Your task to perform on an android device: check google app version Image 0: 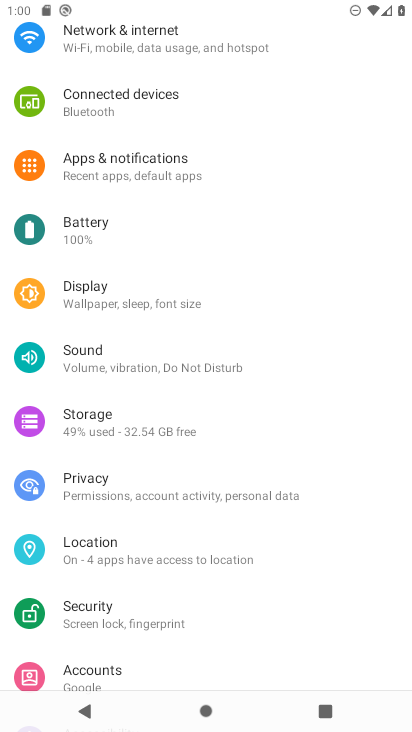
Step 0: press home button
Your task to perform on an android device: check google app version Image 1: 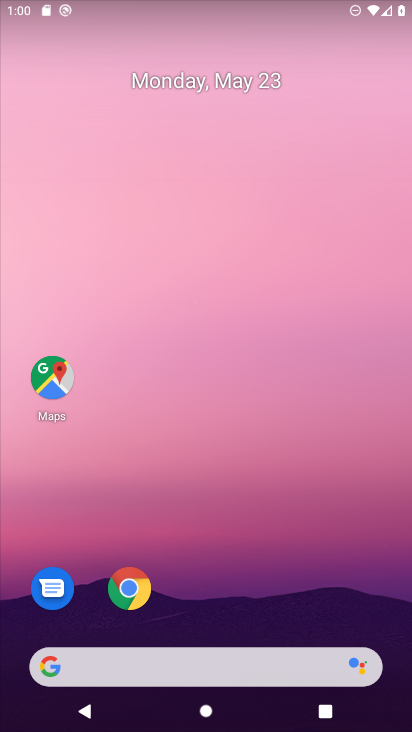
Step 1: drag from (199, 643) to (201, 372)
Your task to perform on an android device: check google app version Image 2: 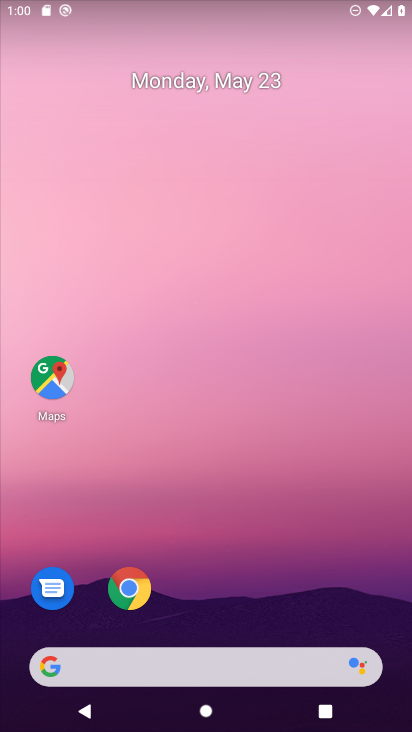
Step 2: drag from (205, 644) to (212, 12)
Your task to perform on an android device: check google app version Image 3: 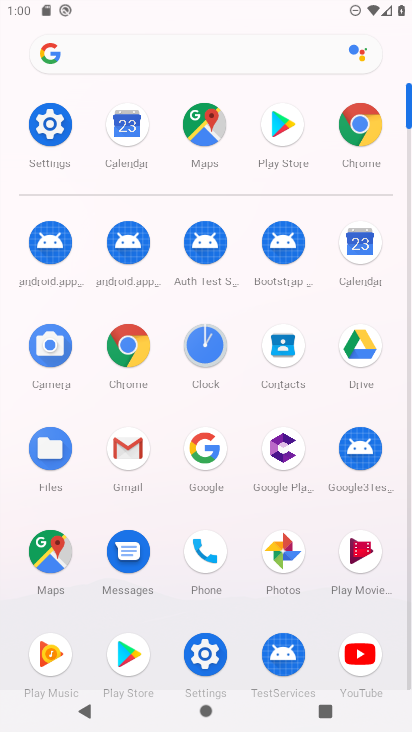
Step 3: drag from (207, 450) to (317, 292)
Your task to perform on an android device: check google app version Image 4: 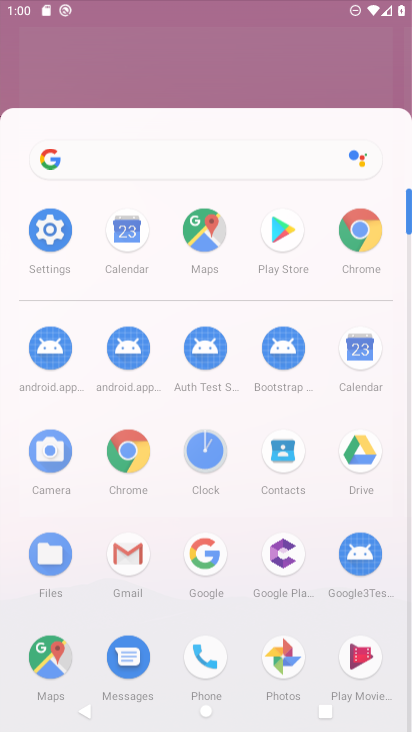
Step 4: click (311, 300)
Your task to perform on an android device: check google app version Image 5: 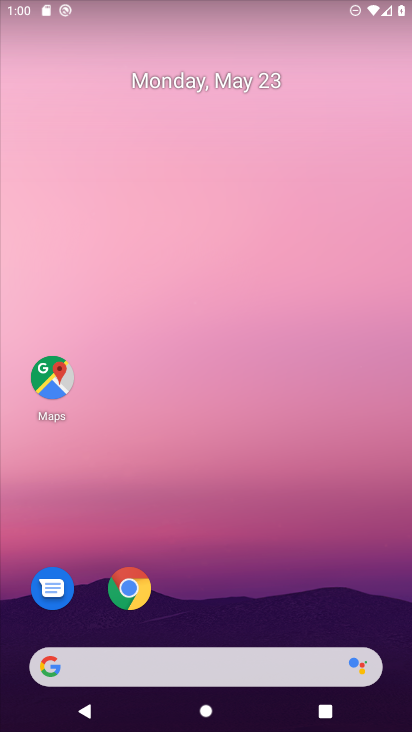
Step 5: drag from (191, 645) to (267, 186)
Your task to perform on an android device: check google app version Image 6: 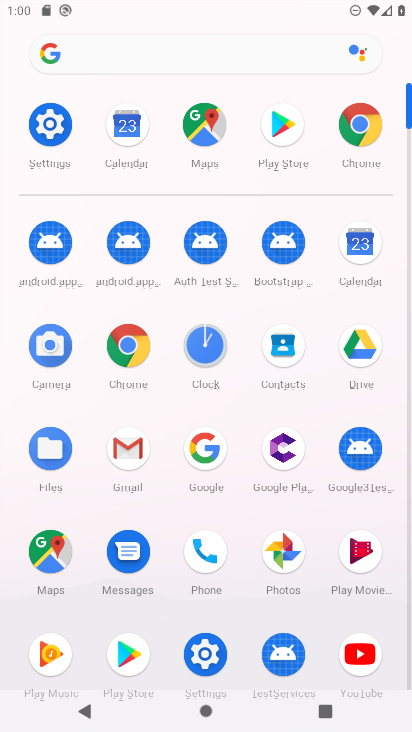
Step 6: click (208, 444)
Your task to perform on an android device: check google app version Image 7: 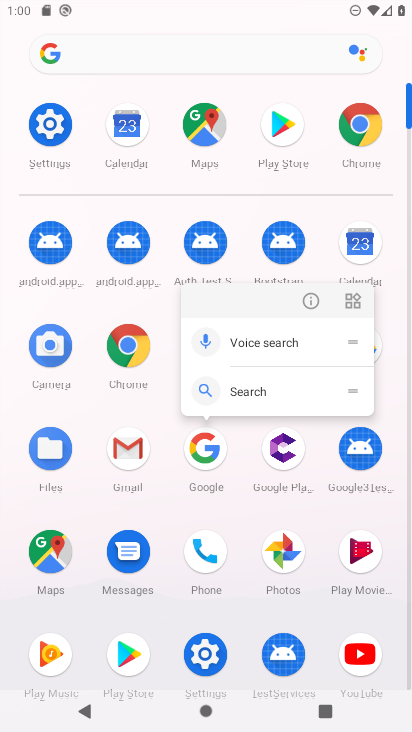
Step 7: click (310, 300)
Your task to perform on an android device: check google app version Image 8: 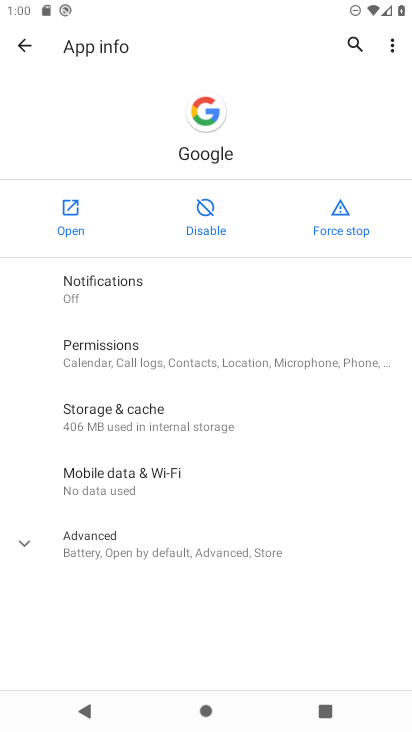
Step 8: click (145, 545)
Your task to perform on an android device: check google app version Image 9: 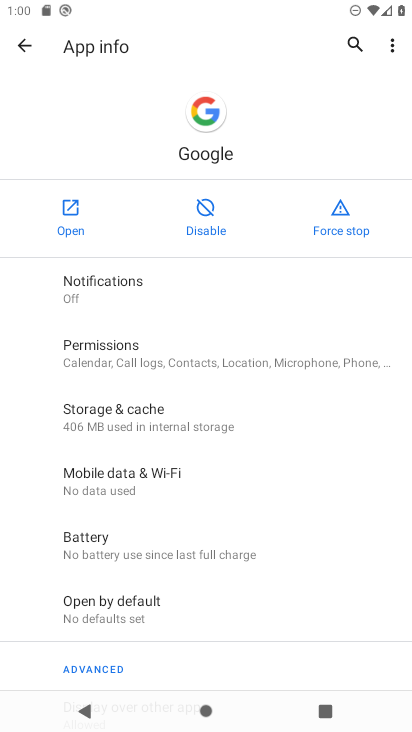
Step 9: task complete